Your task to perform on an android device: turn on priority inbox in the gmail app Image 0: 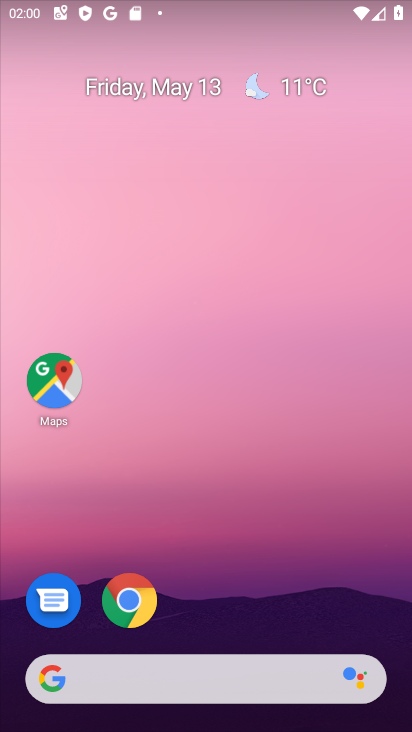
Step 0: click (391, 137)
Your task to perform on an android device: turn on priority inbox in the gmail app Image 1: 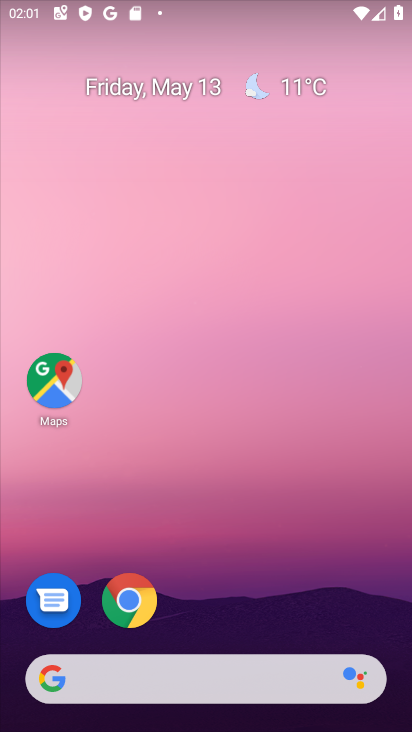
Step 1: drag from (214, 614) to (360, 1)
Your task to perform on an android device: turn on priority inbox in the gmail app Image 2: 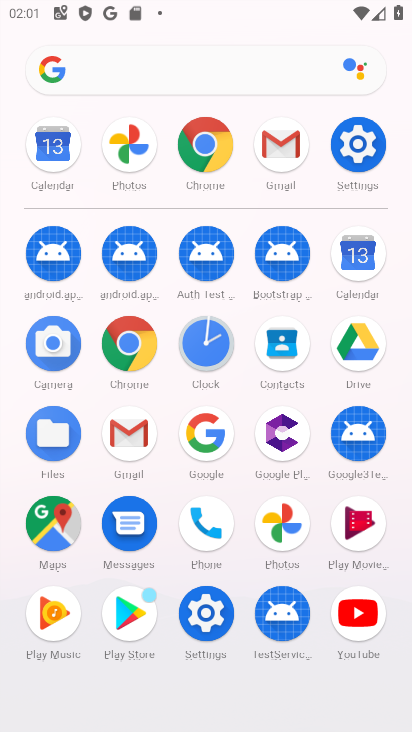
Step 2: click (128, 423)
Your task to perform on an android device: turn on priority inbox in the gmail app Image 3: 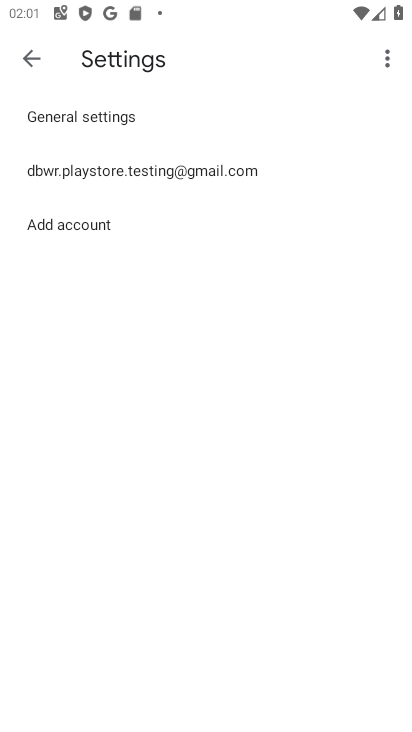
Step 3: click (21, 59)
Your task to perform on an android device: turn on priority inbox in the gmail app Image 4: 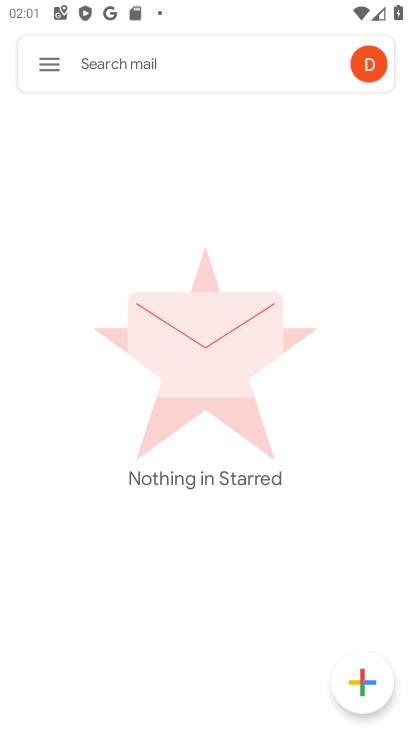
Step 4: click (48, 70)
Your task to perform on an android device: turn on priority inbox in the gmail app Image 5: 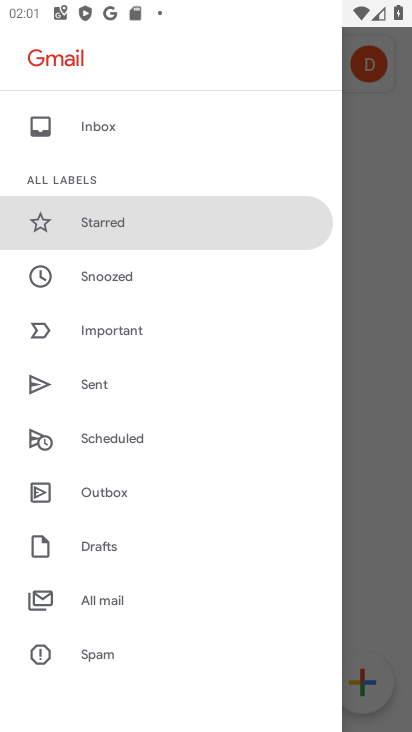
Step 5: drag from (113, 644) to (173, 34)
Your task to perform on an android device: turn on priority inbox in the gmail app Image 6: 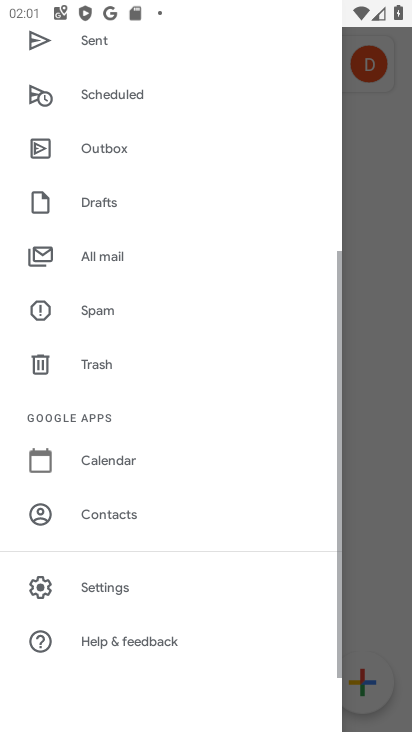
Step 6: click (135, 578)
Your task to perform on an android device: turn on priority inbox in the gmail app Image 7: 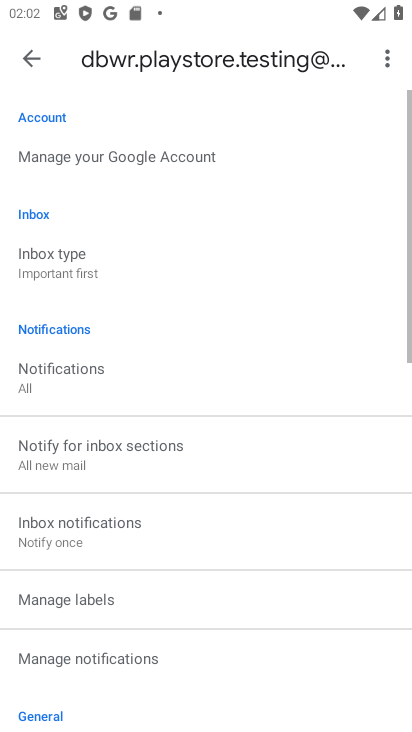
Step 7: drag from (215, 623) to (276, 147)
Your task to perform on an android device: turn on priority inbox in the gmail app Image 8: 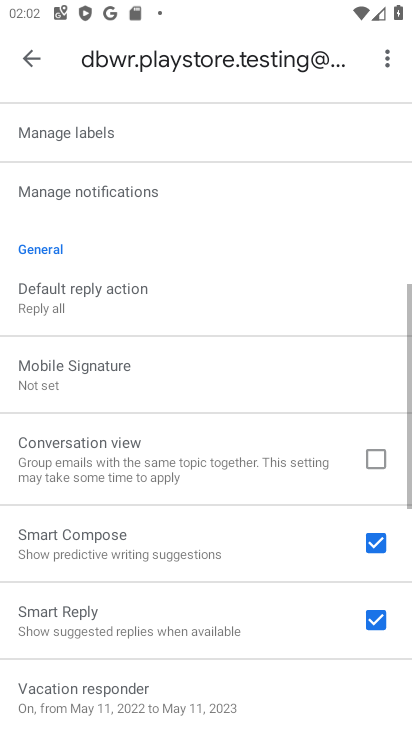
Step 8: drag from (273, 166) to (229, 718)
Your task to perform on an android device: turn on priority inbox in the gmail app Image 9: 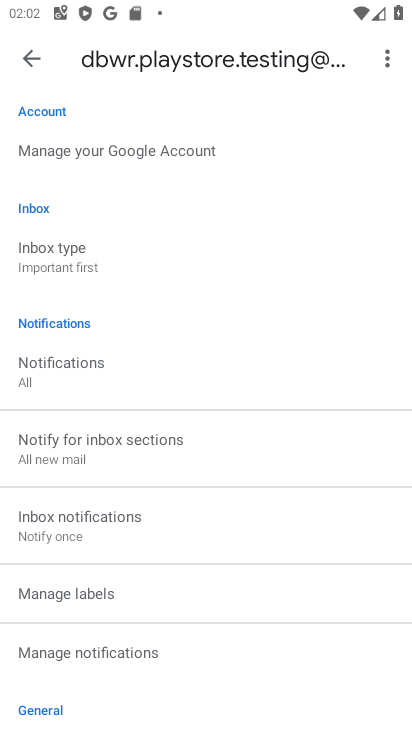
Step 9: click (97, 255)
Your task to perform on an android device: turn on priority inbox in the gmail app Image 10: 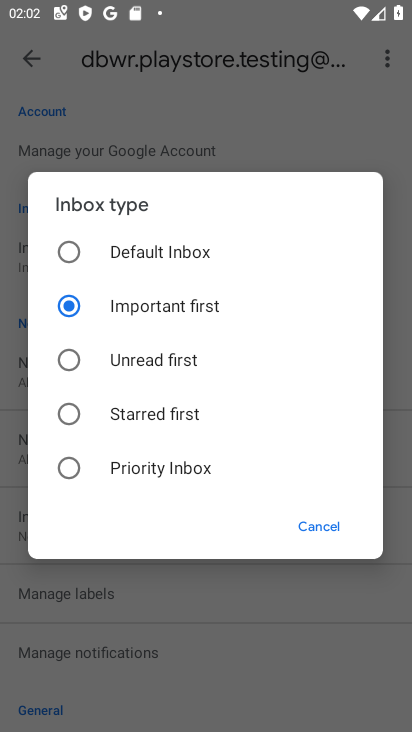
Step 10: click (129, 463)
Your task to perform on an android device: turn on priority inbox in the gmail app Image 11: 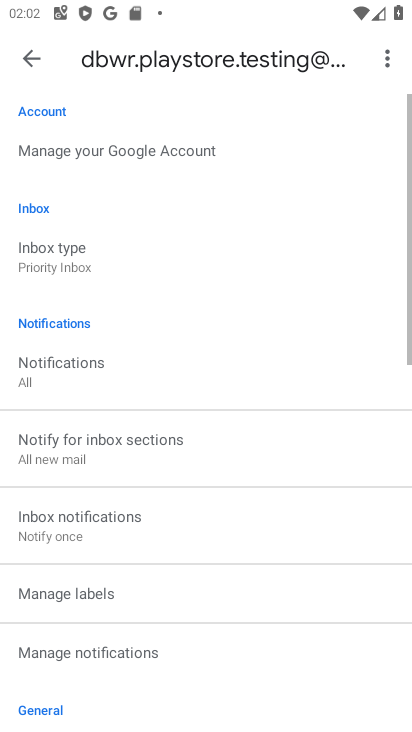
Step 11: task complete